Your task to perform on an android device: Show me the alarms in the clock app Image 0: 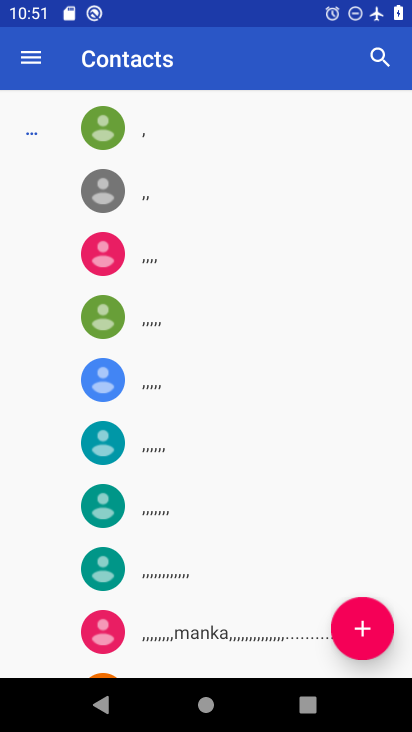
Step 0: press home button
Your task to perform on an android device: Show me the alarms in the clock app Image 1: 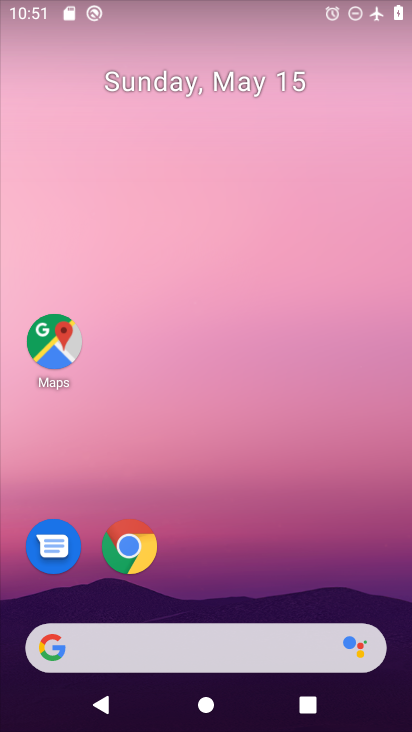
Step 1: drag from (258, 551) to (275, 131)
Your task to perform on an android device: Show me the alarms in the clock app Image 2: 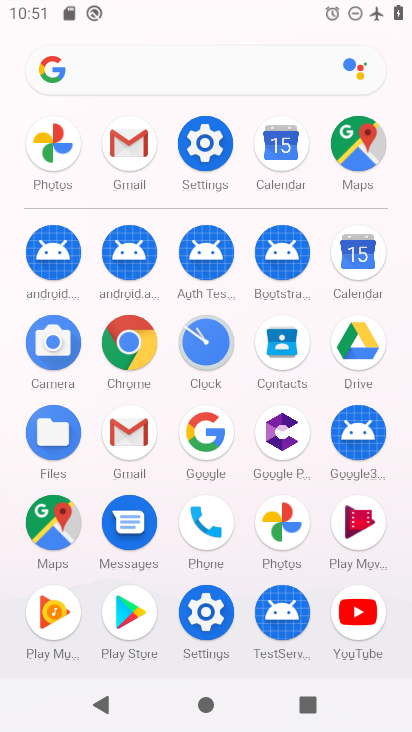
Step 2: click (215, 355)
Your task to perform on an android device: Show me the alarms in the clock app Image 3: 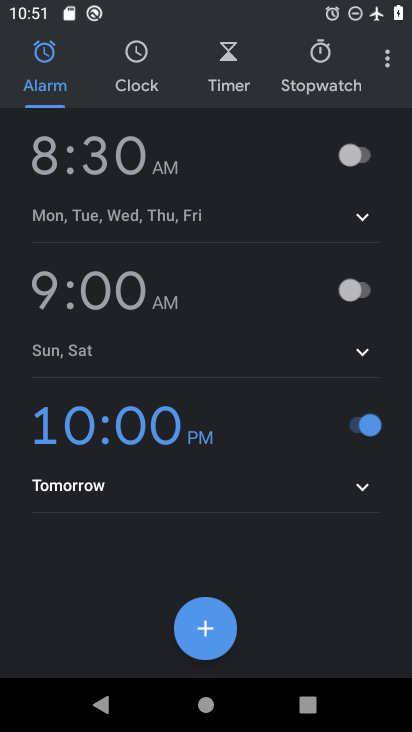
Step 3: task complete